Your task to perform on an android device: open app "Microsoft Outlook" Image 0: 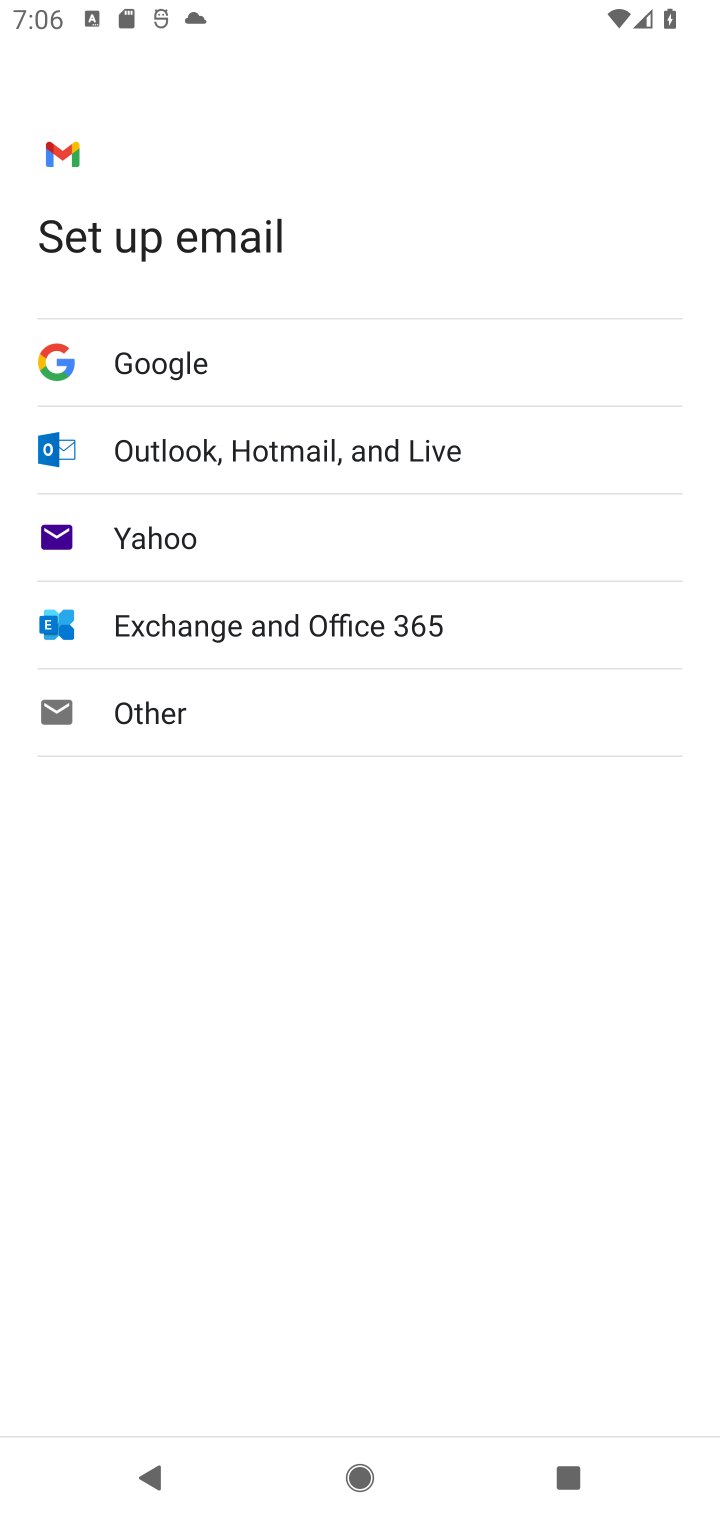
Step 0: press home button
Your task to perform on an android device: open app "Microsoft Outlook" Image 1: 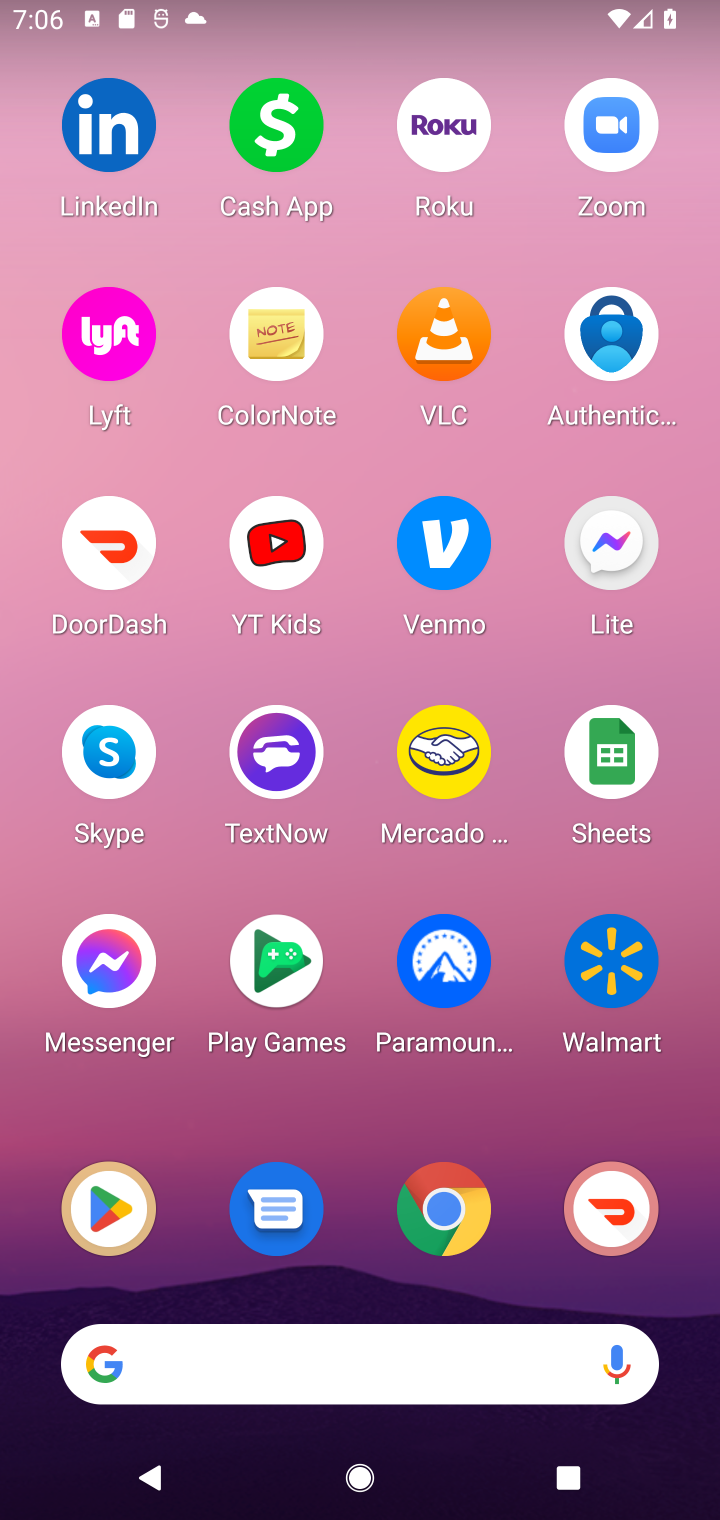
Step 1: click (94, 1217)
Your task to perform on an android device: open app "Microsoft Outlook" Image 2: 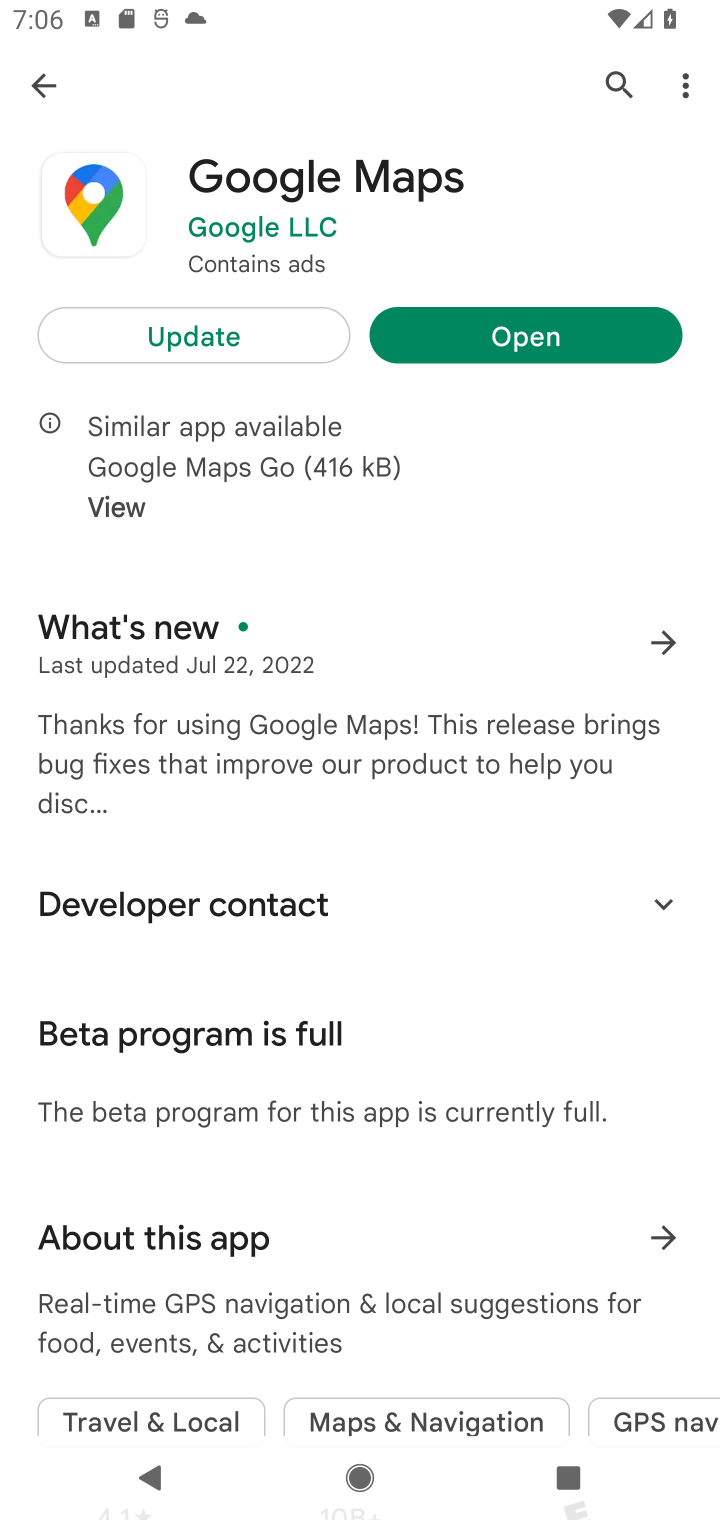
Step 2: click (621, 80)
Your task to perform on an android device: open app "Microsoft Outlook" Image 3: 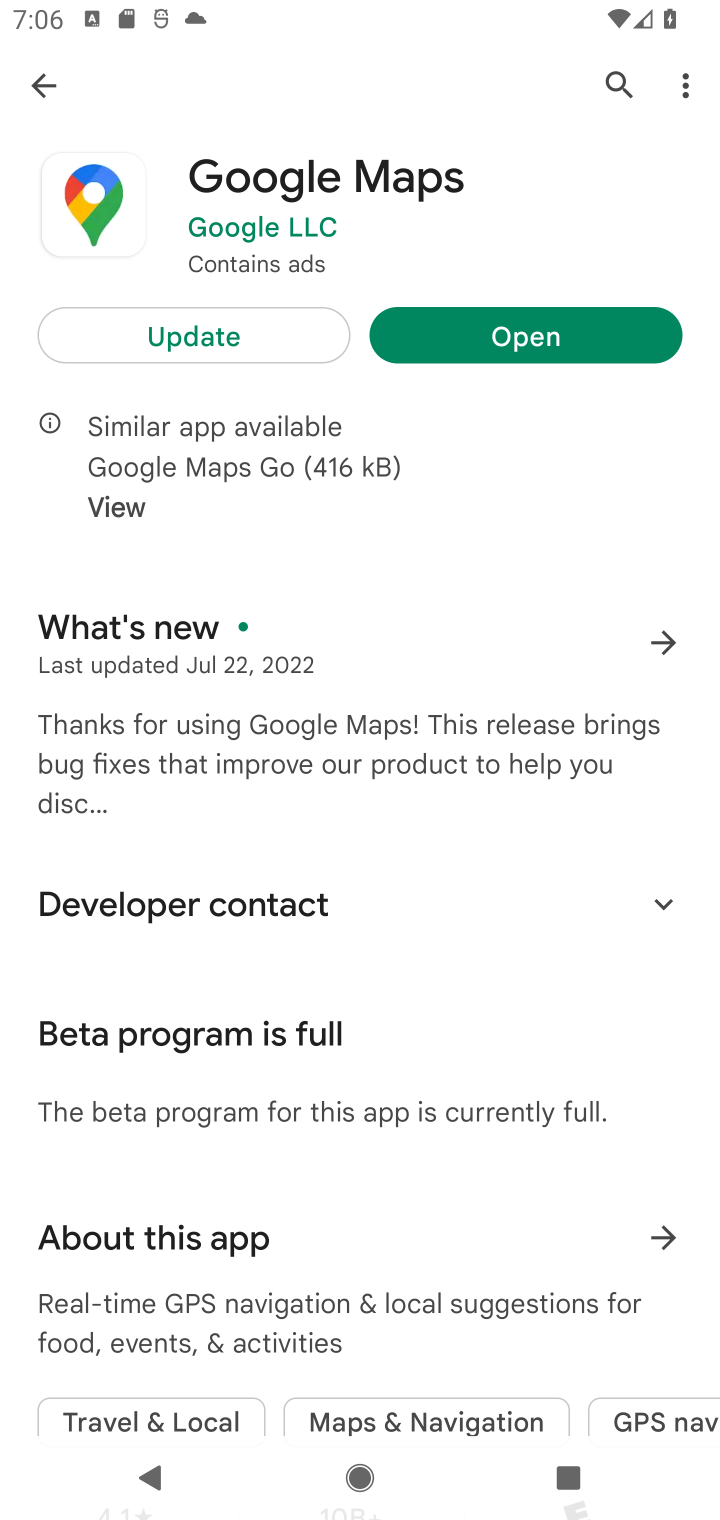
Step 3: click (606, 84)
Your task to perform on an android device: open app "Microsoft Outlook" Image 4: 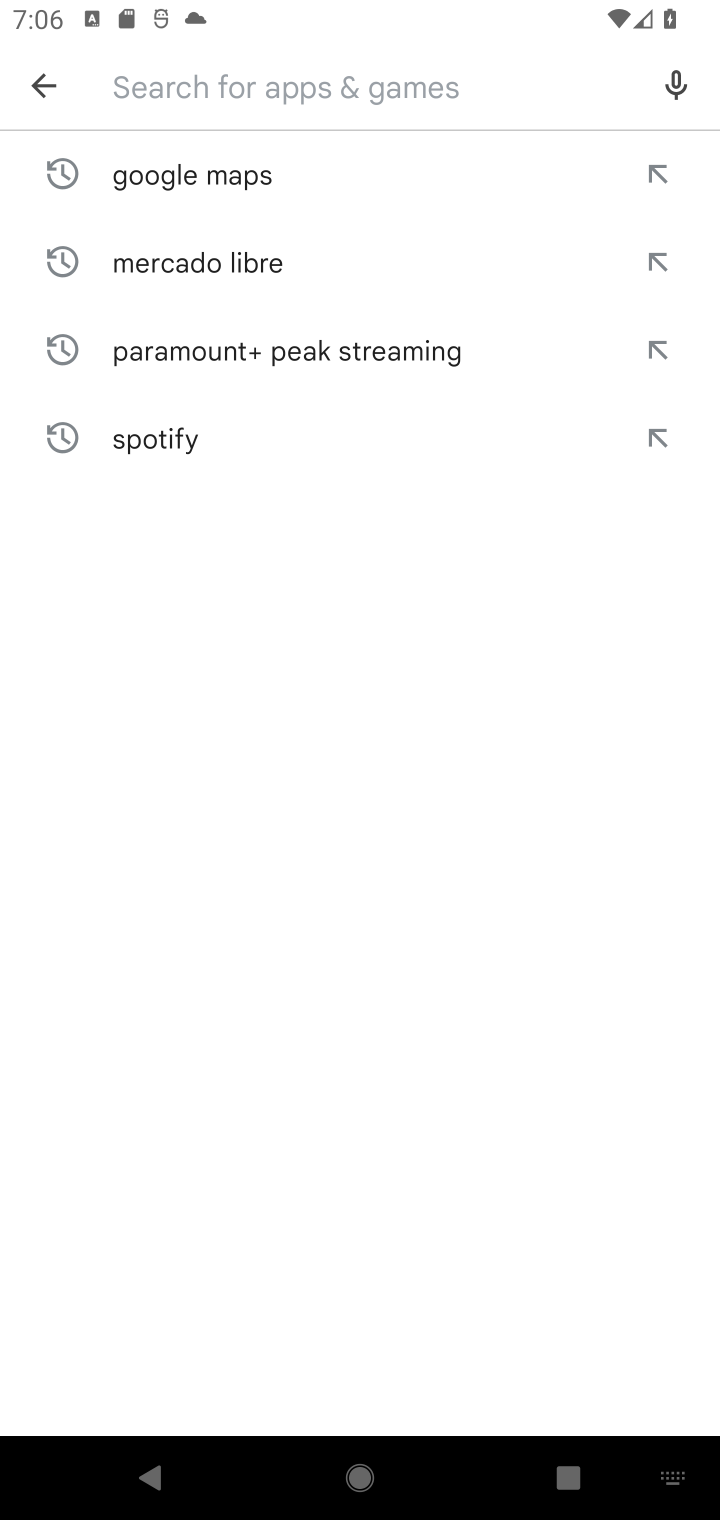
Step 4: type "Microsoft Outlook"
Your task to perform on an android device: open app "Microsoft Outlook" Image 5: 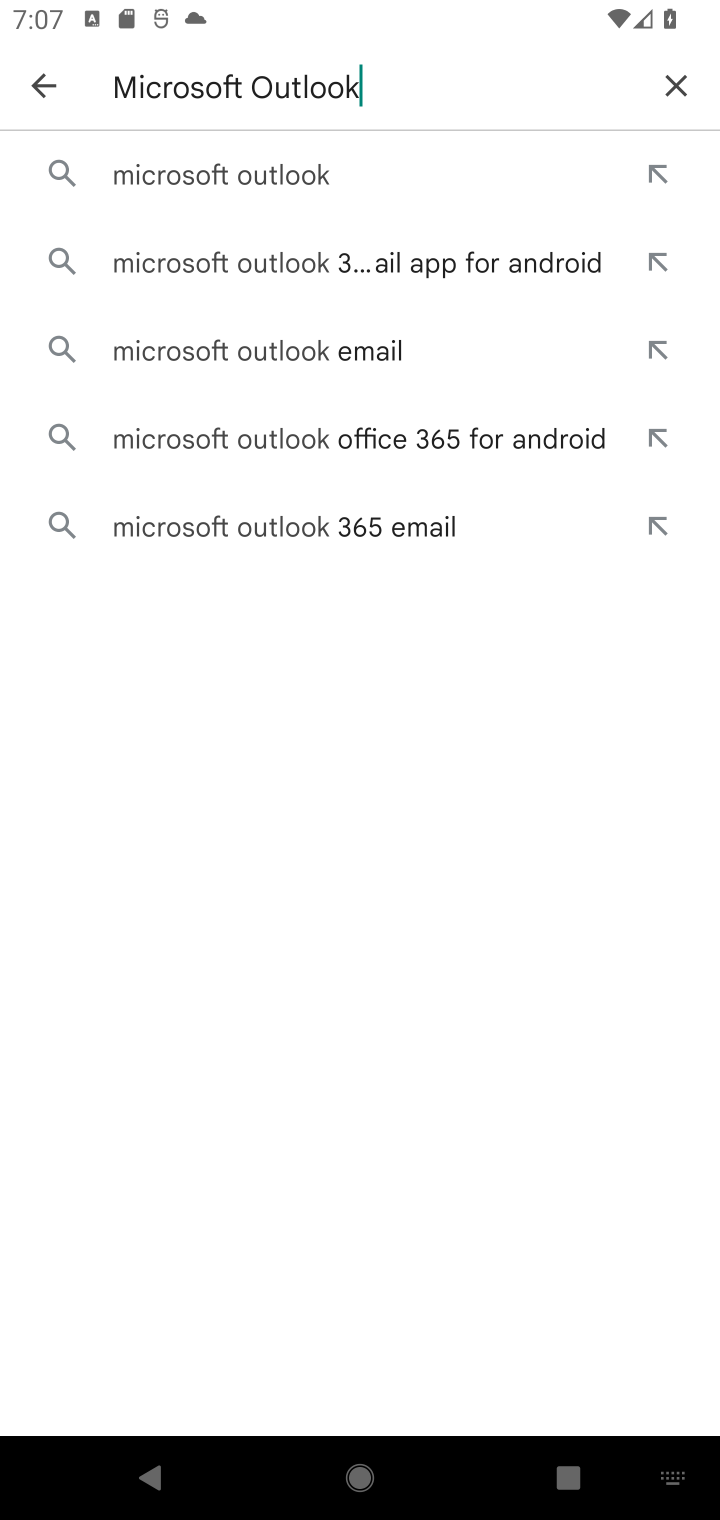
Step 5: click (148, 166)
Your task to perform on an android device: open app "Microsoft Outlook" Image 6: 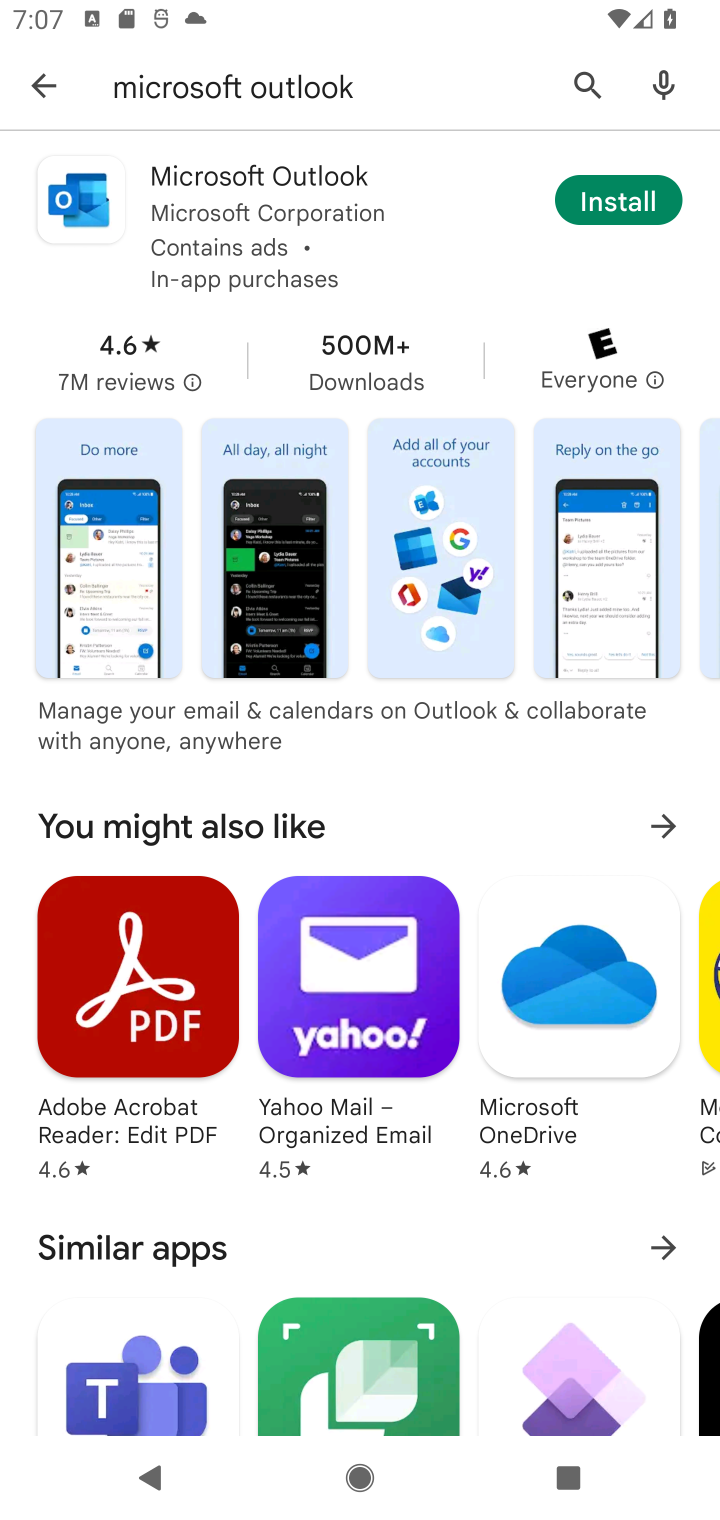
Step 6: task complete